Your task to perform on an android device: toggle airplane mode Image 0: 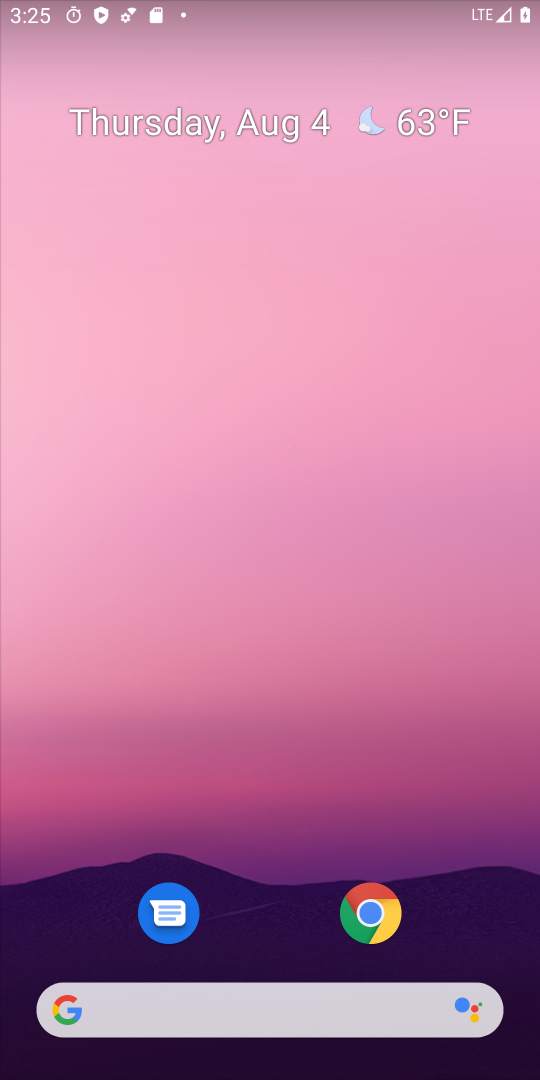
Step 0: drag from (289, 1012) to (324, 103)
Your task to perform on an android device: toggle airplane mode Image 1: 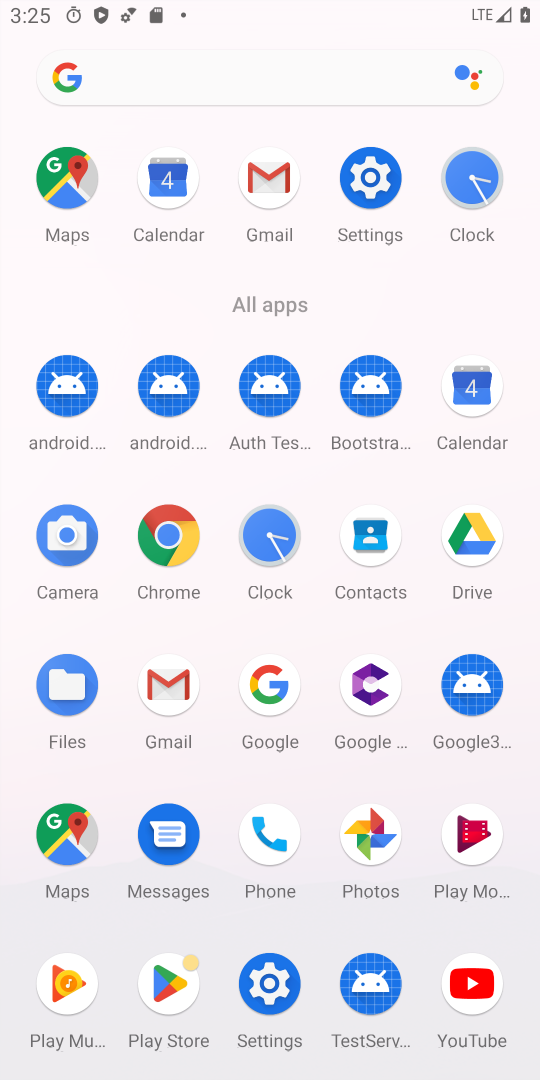
Step 1: click (360, 163)
Your task to perform on an android device: toggle airplane mode Image 2: 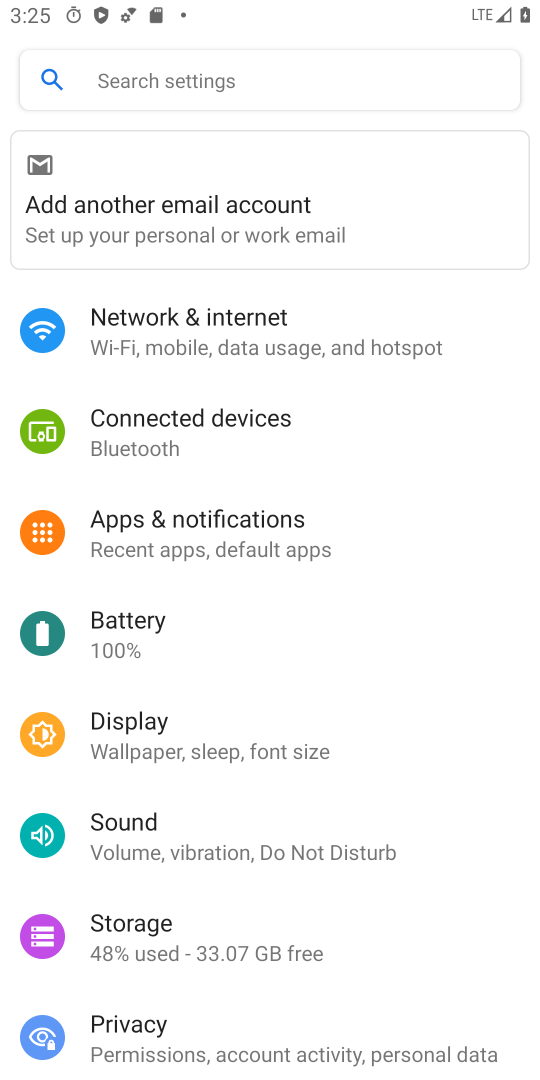
Step 2: click (223, 327)
Your task to perform on an android device: toggle airplane mode Image 3: 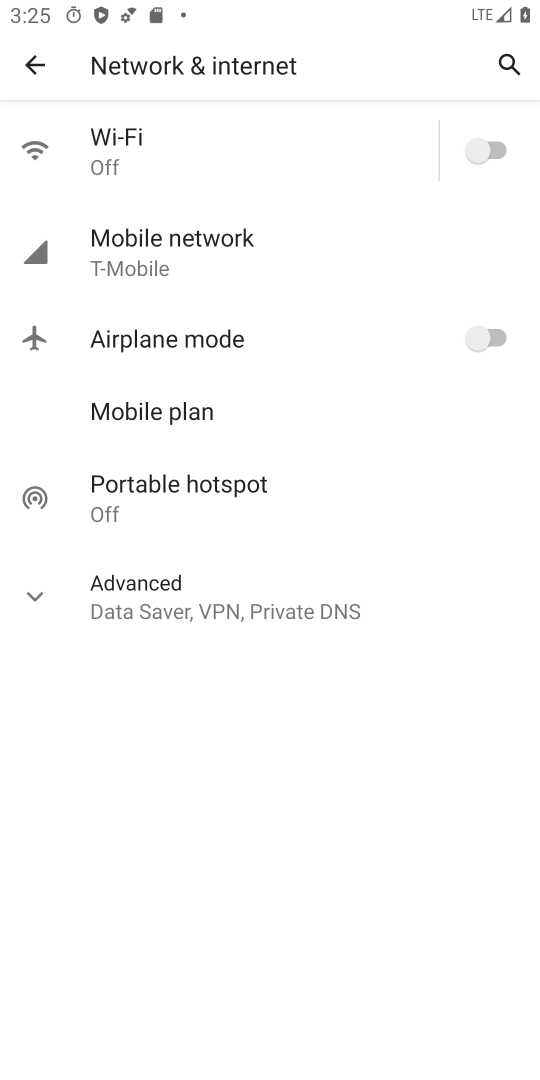
Step 3: click (491, 331)
Your task to perform on an android device: toggle airplane mode Image 4: 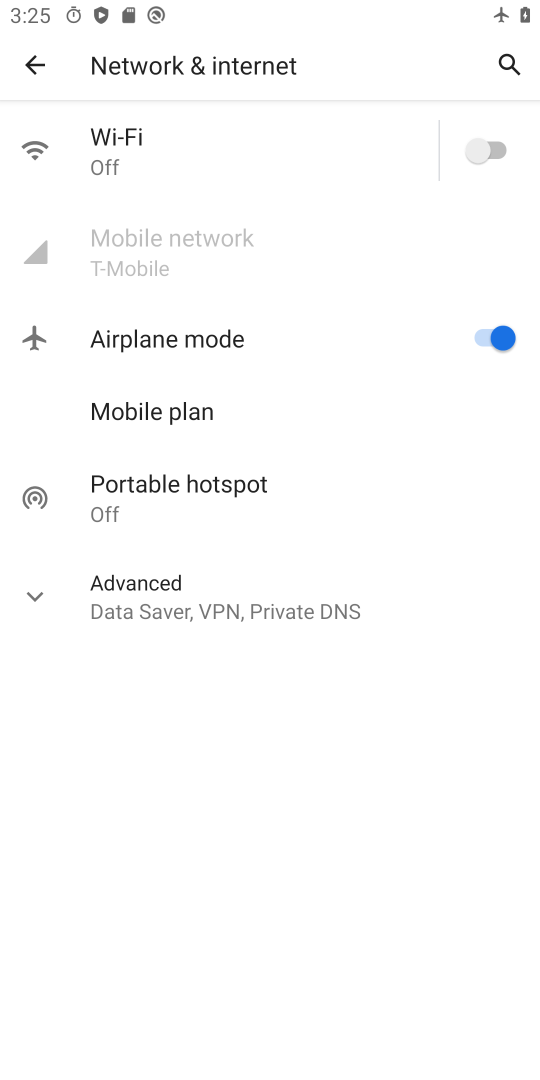
Step 4: task complete